Your task to perform on an android device: delete location history Image 0: 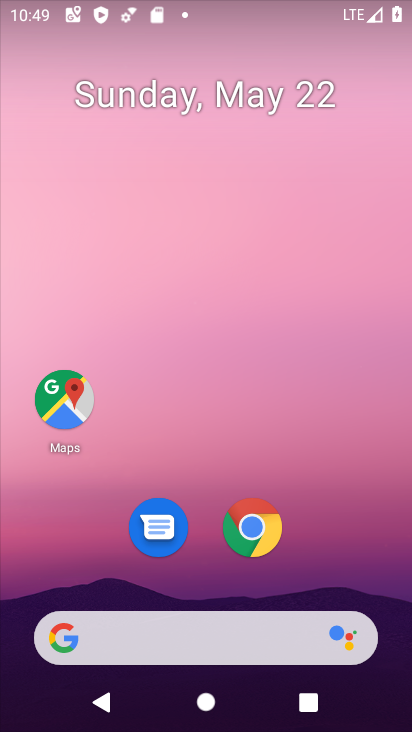
Step 0: drag from (358, 593) to (359, 60)
Your task to perform on an android device: delete location history Image 1: 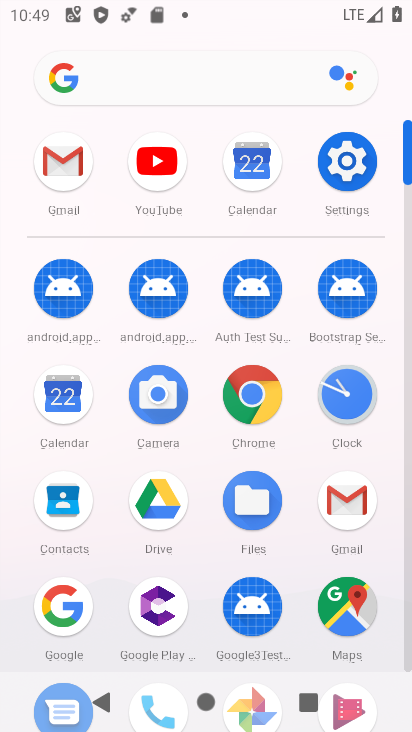
Step 1: click (356, 158)
Your task to perform on an android device: delete location history Image 2: 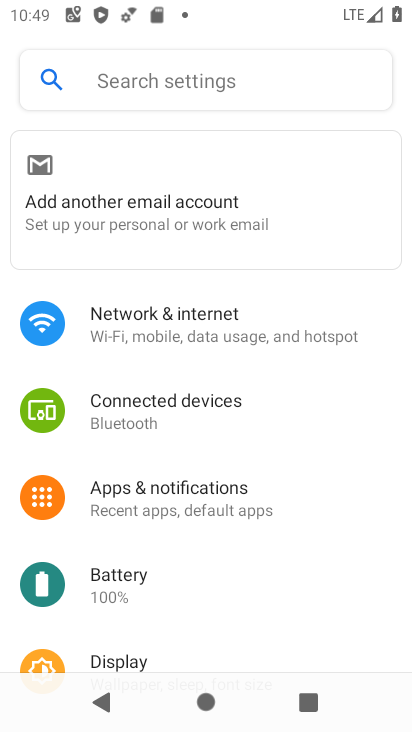
Step 2: drag from (203, 518) to (298, 210)
Your task to perform on an android device: delete location history Image 3: 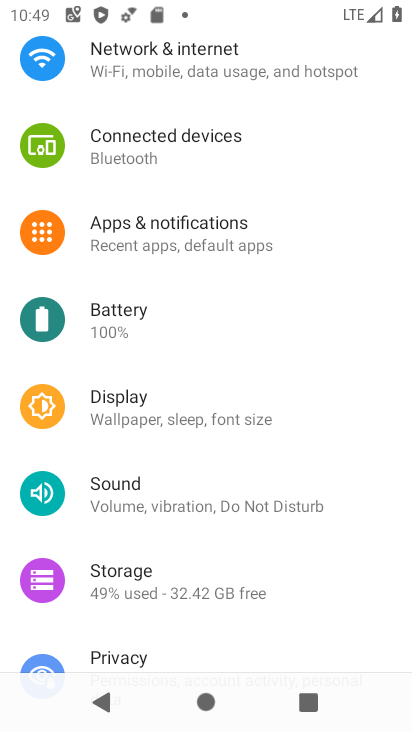
Step 3: drag from (211, 577) to (268, 275)
Your task to perform on an android device: delete location history Image 4: 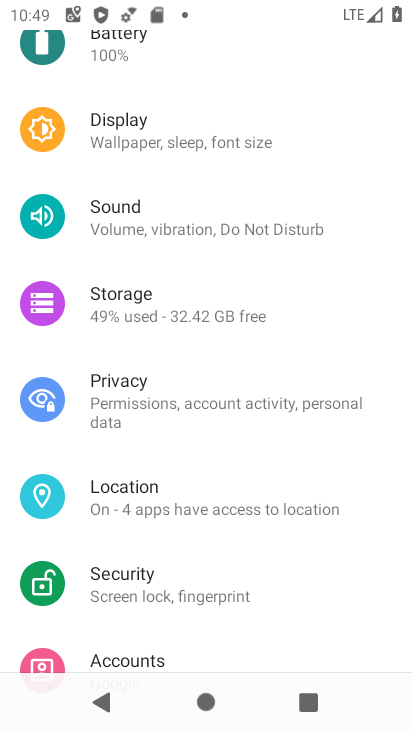
Step 4: click (227, 565)
Your task to perform on an android device: delete location history Image 5: 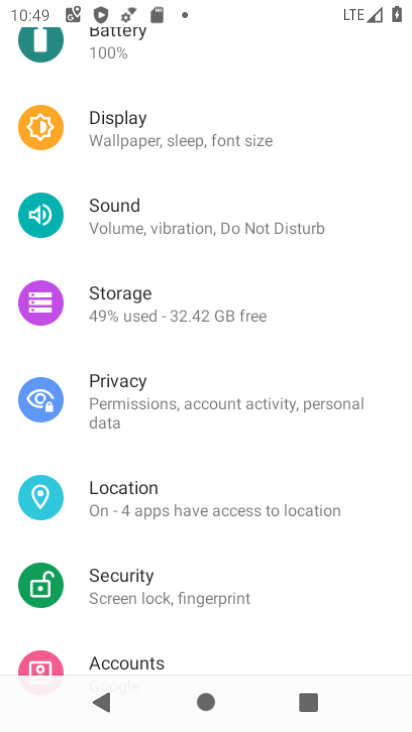
Step 5: click (252, 475)
Your task to perform on an android device: delete location history Image 6: 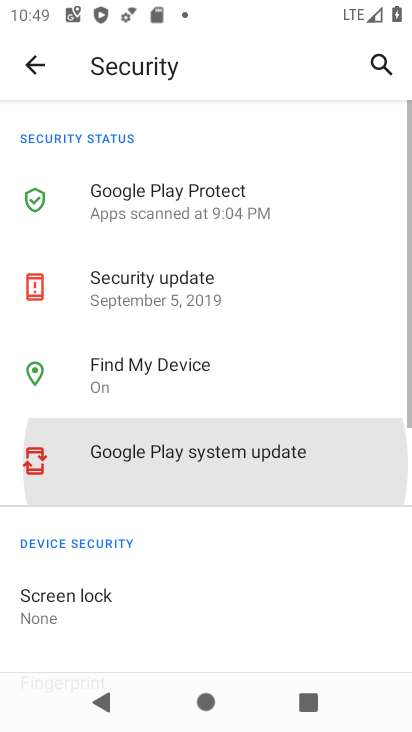
Step 6: click (252, 475)
Your task to perform on an android device: delete location history Image 7: 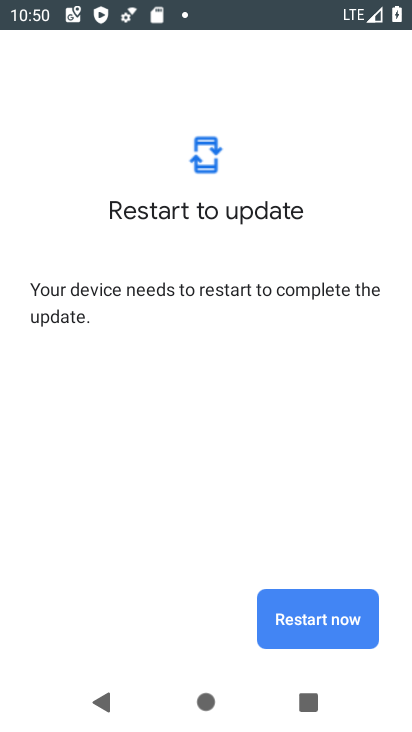
Step 7: click (104, 698)
Your task to perform on an android device: delete location history Image 8: 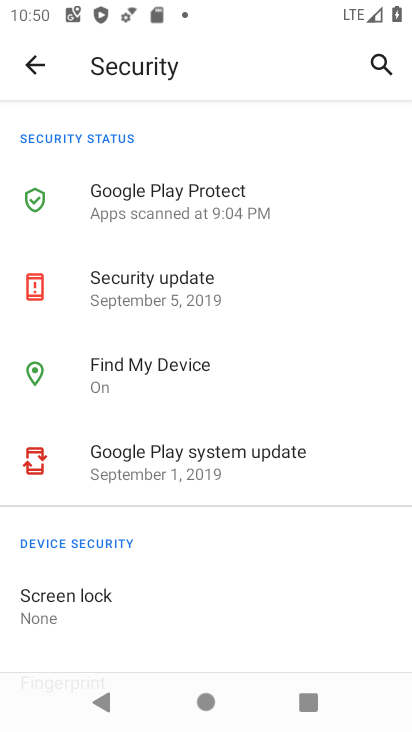
Step 8: click (99, 711)
Your task to perform on an android device: delete location history Image 9: 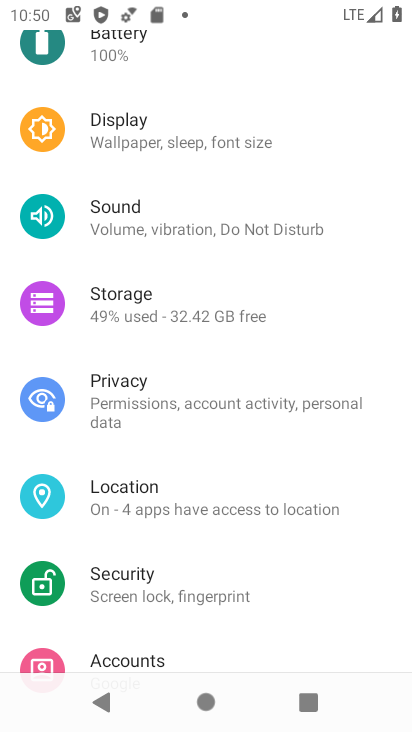
Step 9: click (183, 484)
Your task to perform on an android device: delete location history Image 10: 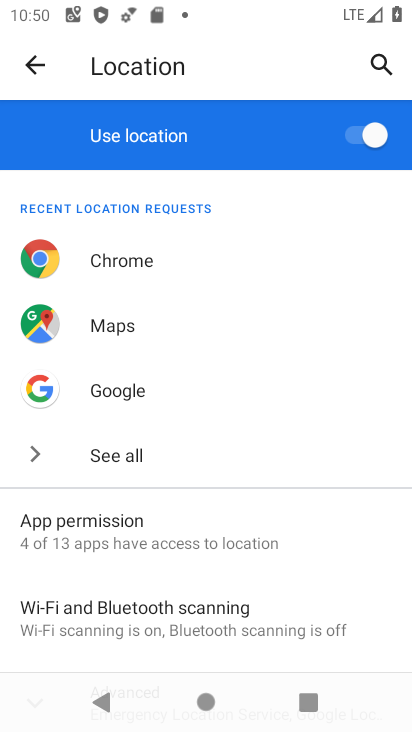
Step 10: task complete